Your task to perform on an android device: open app "DuckDuckGo Privacy Browser" Image 0: 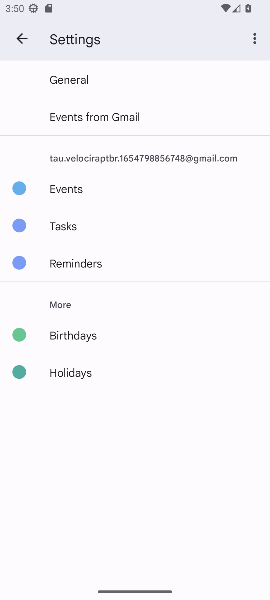
Step 0: press home button
Your task to perform on an android device: open app "DuckDuckGo Privacy Browser" Image 1: 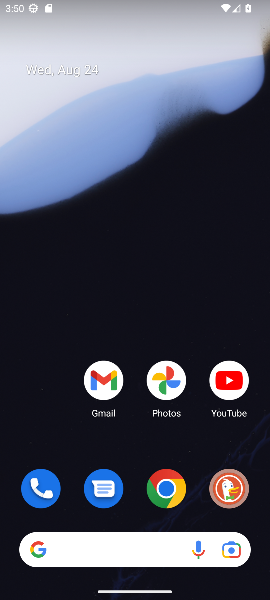
Step 1: click (128, 514)
Your task to perform on an android device: open app "DuckDuckGo Privacy Browser" Image 2: 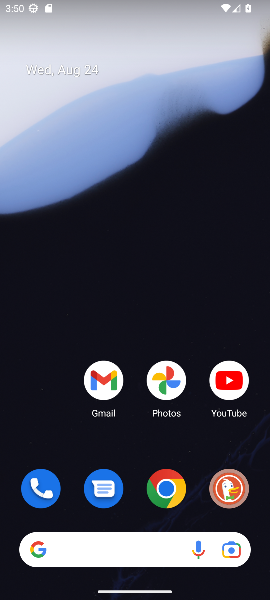
Step 2: click (128, 511)
Your task to perform on an android device: open app "DuckDuckGo Privacy Browser" Image 3: 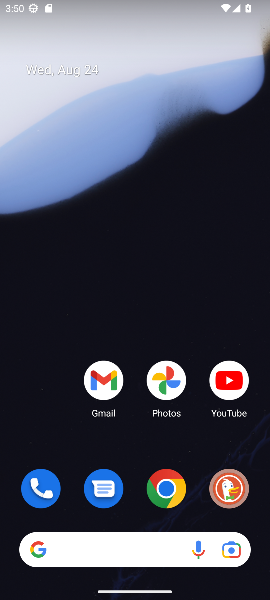
Step 3: click (220, 496)
Your task to perform on an android device: open app "DuckDuckGo Privacy Browser" Image 4: 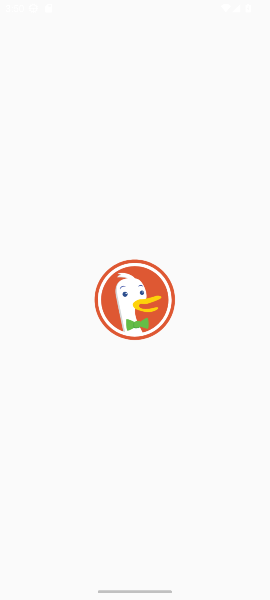
Step 4: task complete